Your task to perform on an android device: Go to Android settings Image 0: 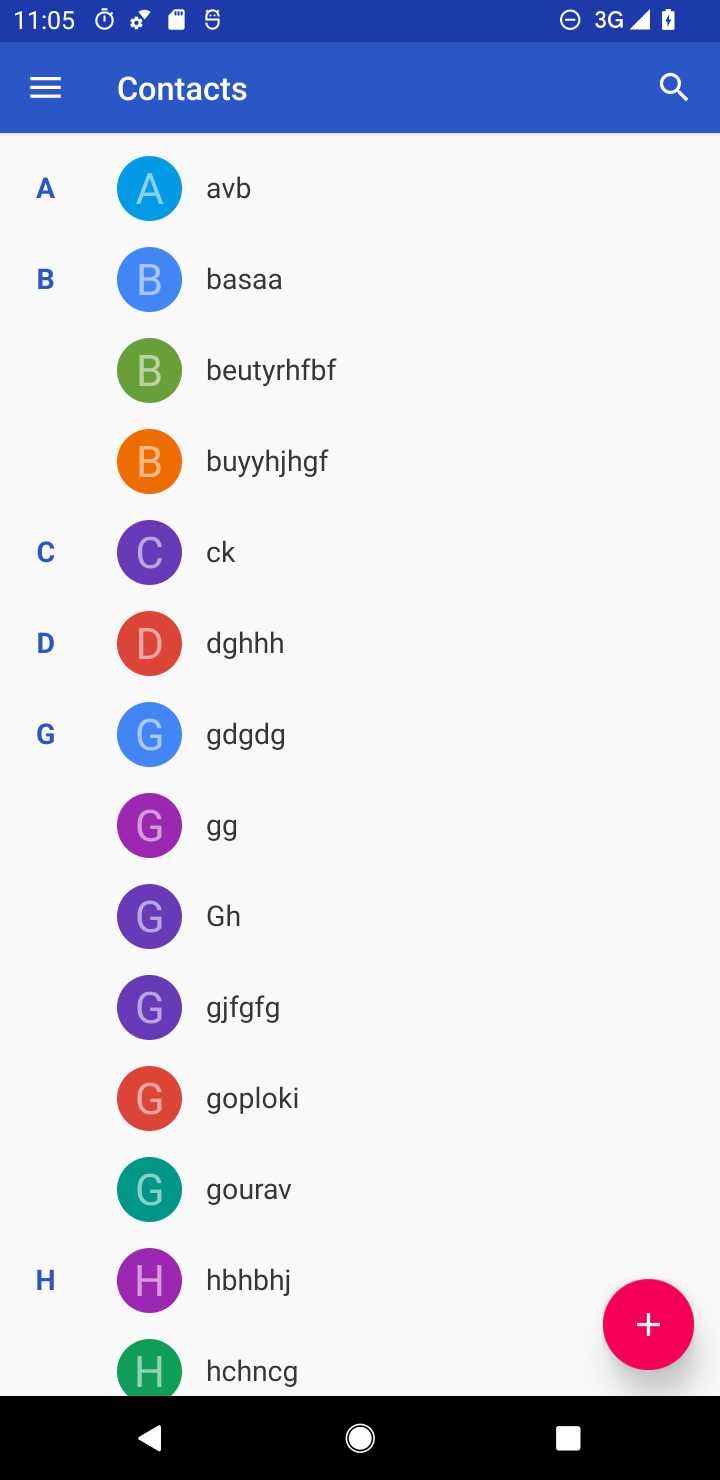
Step 0: press home button
Your task to perform on an android device: Go to Android settings Image 1: 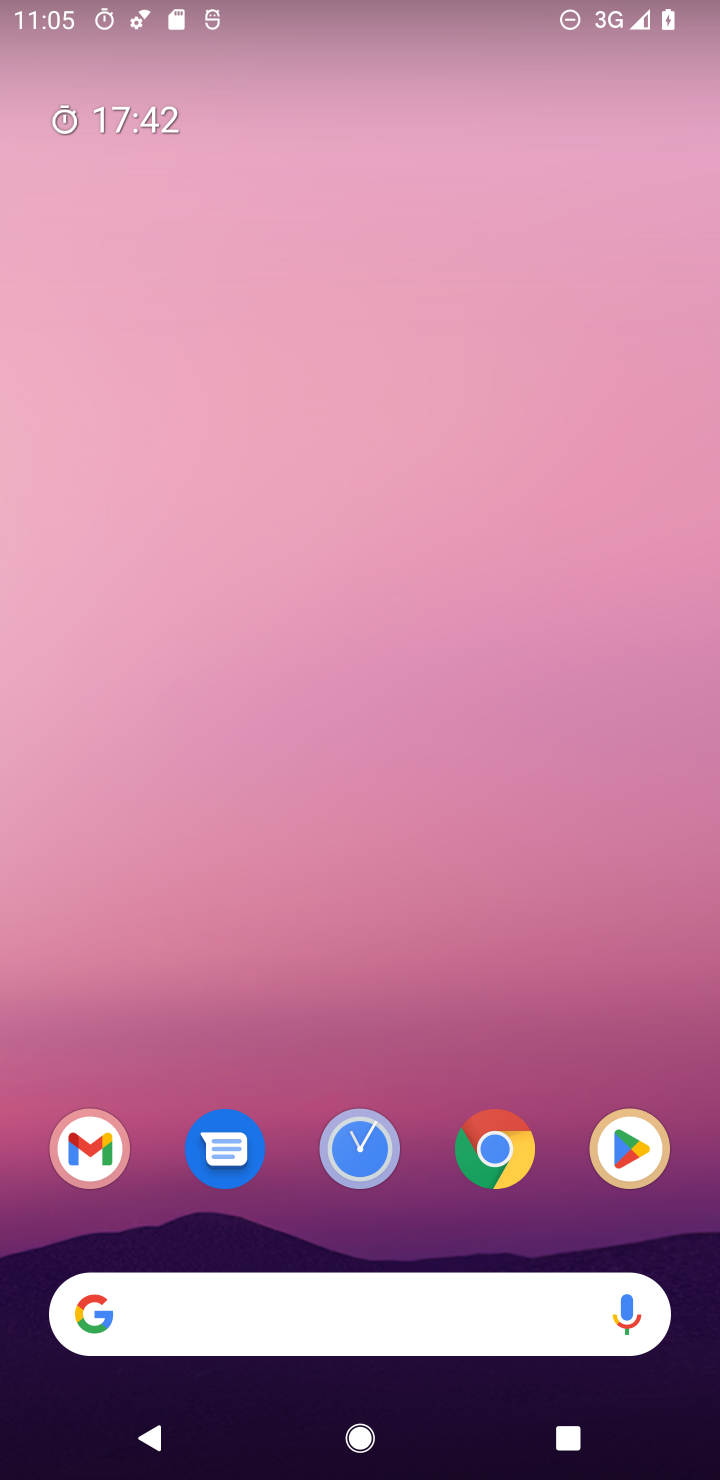
Step 1: drag from (149, 1258) to (214, 497)
Your task to perform on an android device: Go to Android settings Image 2: 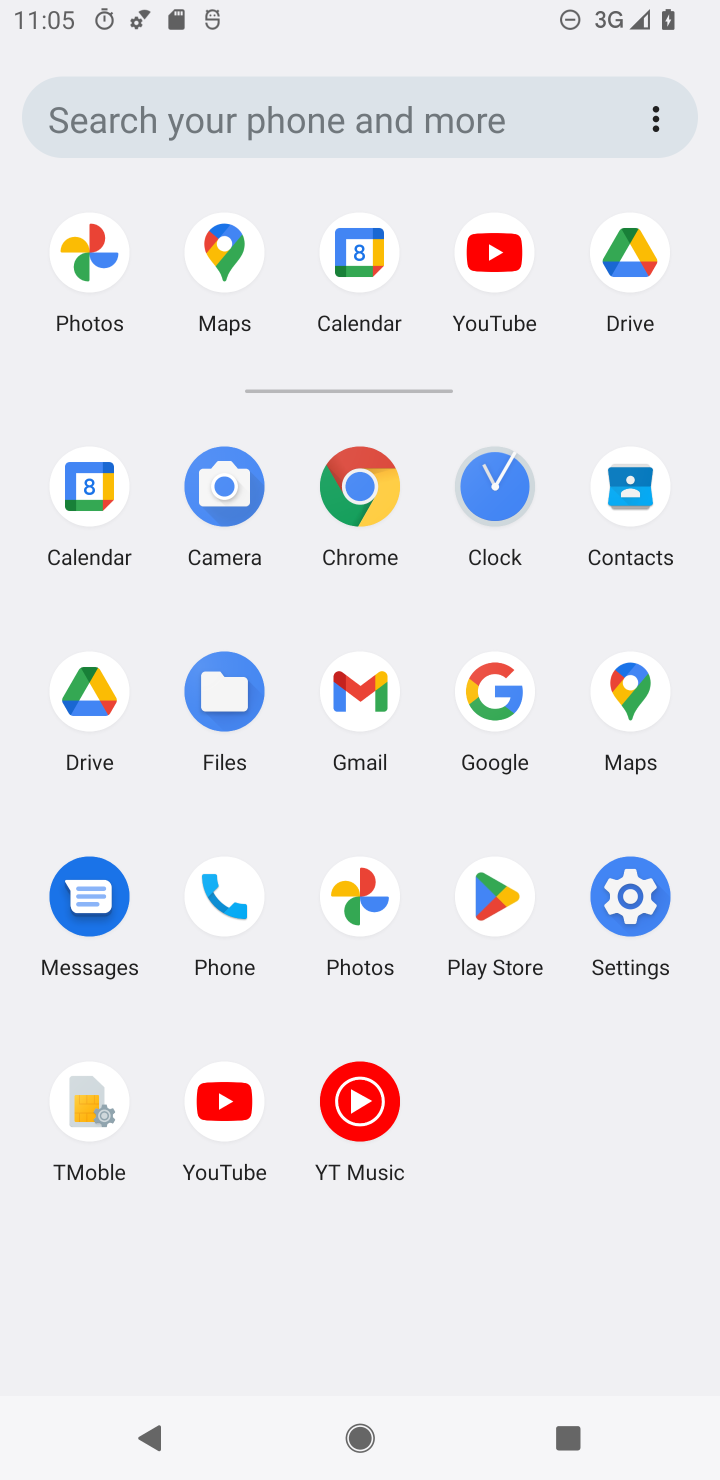
Step 2: click (629, 888)
Your task to perform on an android device: Go to Android settings Image 3: 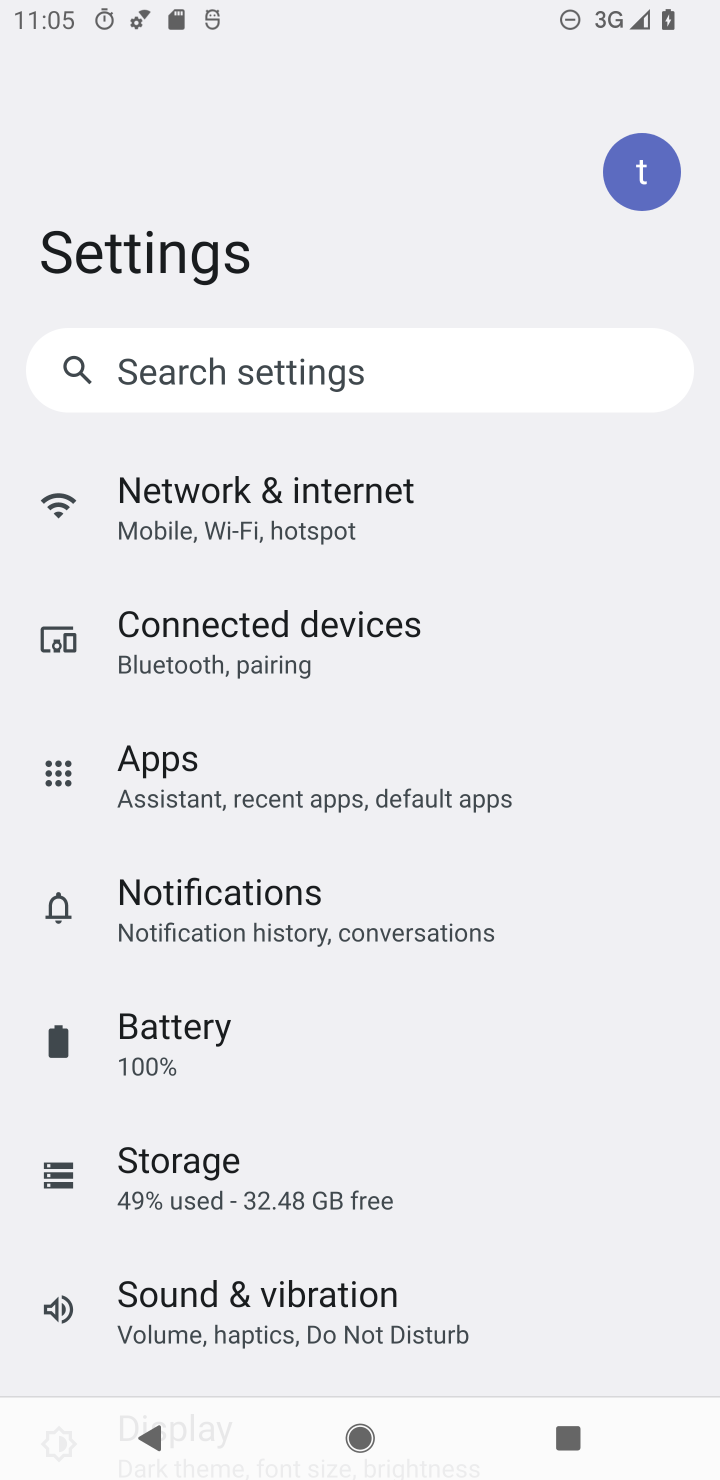
Step 3: task complete